Your task to perform on an android device: toggle wifi Image 0: 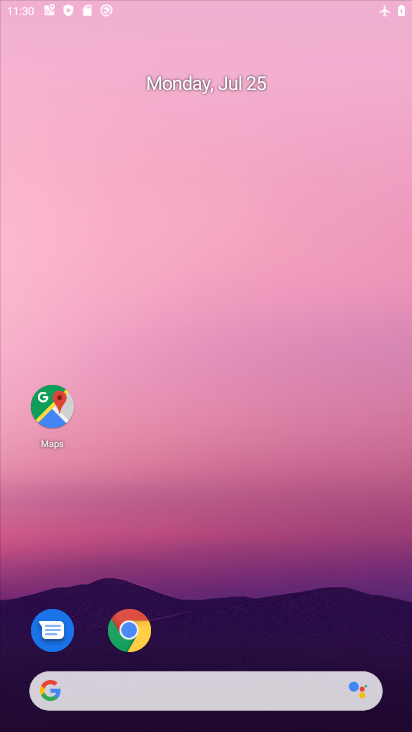
Step 0: drag from (243, 682) to (263, 210)
Your task to perform on an android device: toggle wifi Image 1: 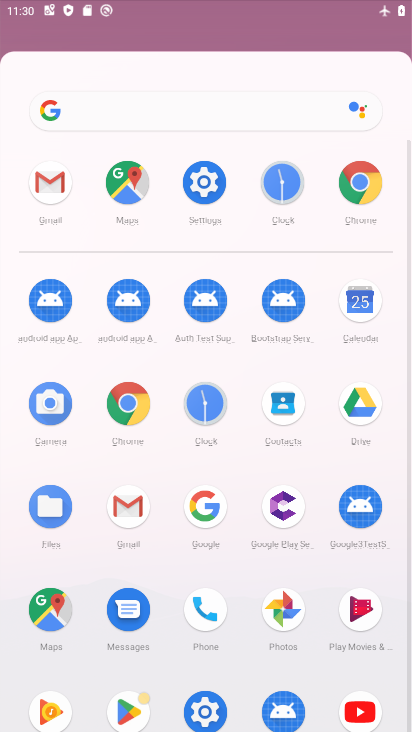
Step 1: drag from (306, 418) to (225, 189)
Your task to perform on an android device: toggle wifi Image 2: 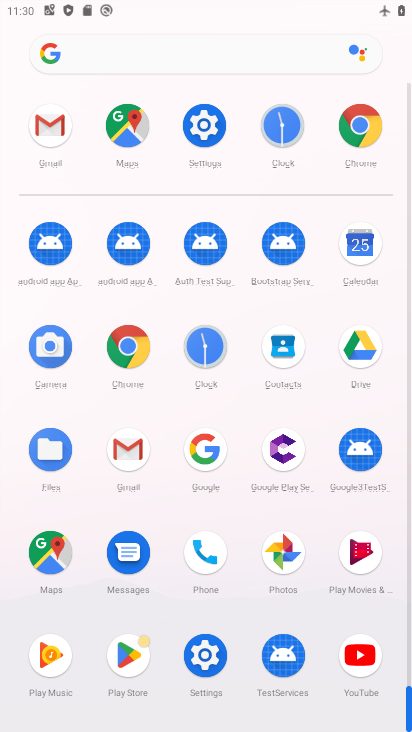
Step 2: click (203, 204)
Your task to perform on an android device: toggle wifi Image 3: 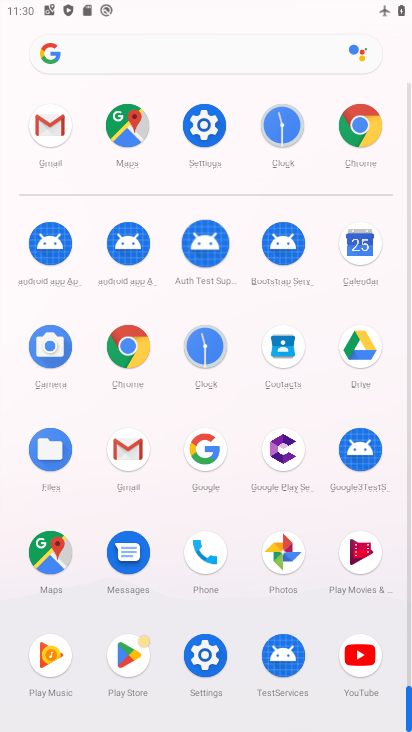
Step 3: click (198, 131)
Your task to perform on an android device: toggle wifi Image 4: 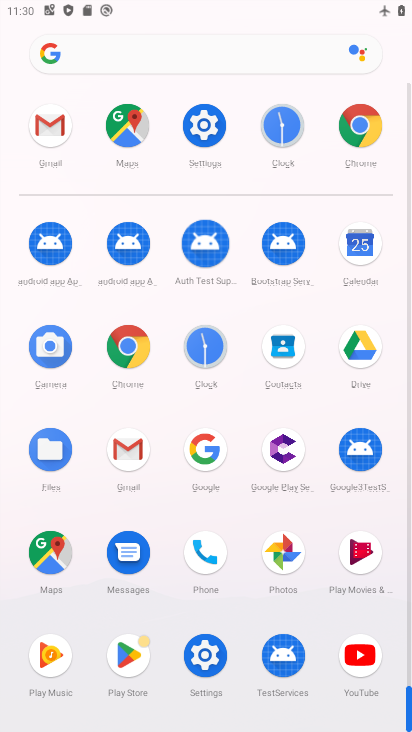
Step 4: click (198, 131)
Your task to perform on an android device: toggle wifi Image 5: 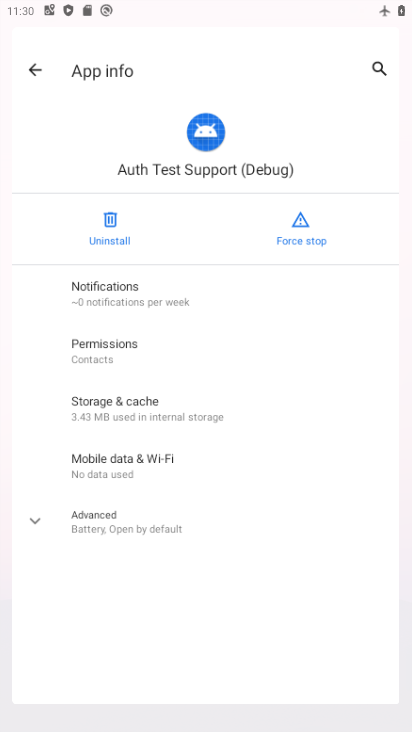
Step 5: click (205, 126)
Your task to perform on an android device: toggle wifi Image 6: 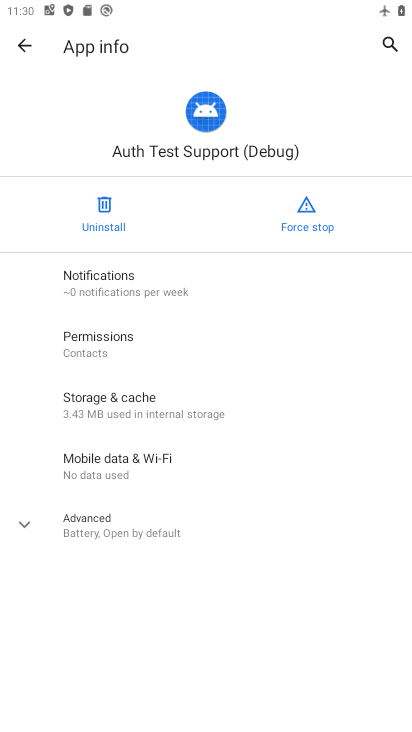
Step 6: click (33, 44)
Your task to perform on an android device: toggle wifi Image 7: 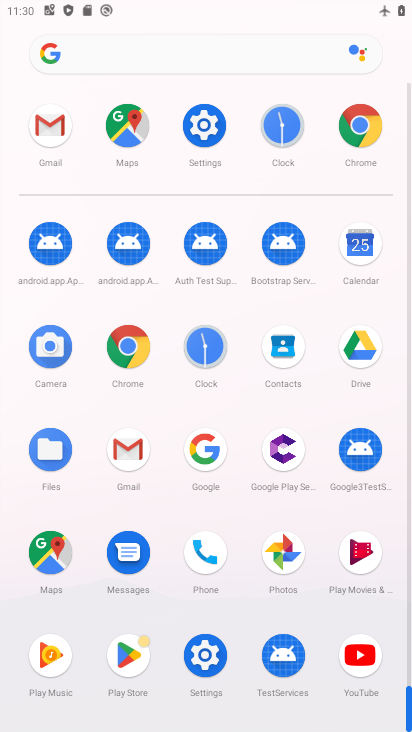
Step 7: click (203, 122)
Your task to perform on an android device: toggle wifi Image 8: 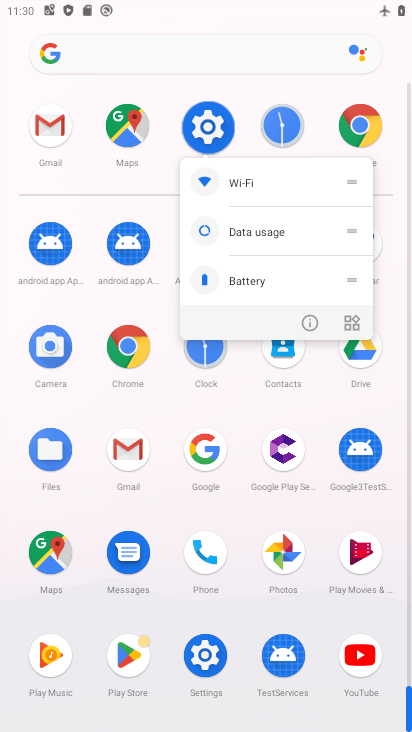
Step 8: click (208, 124)
Your task to perform on an android device: toggle wifi Image 9: 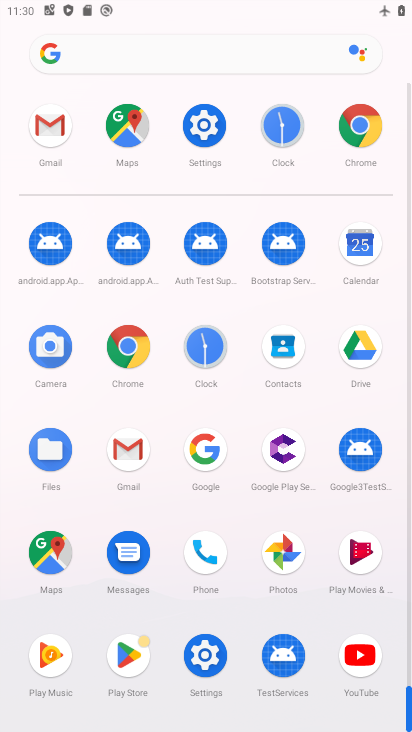
Step 9: click (249, 181)
Your task to perform on an android device: toggle wifi Image 10: 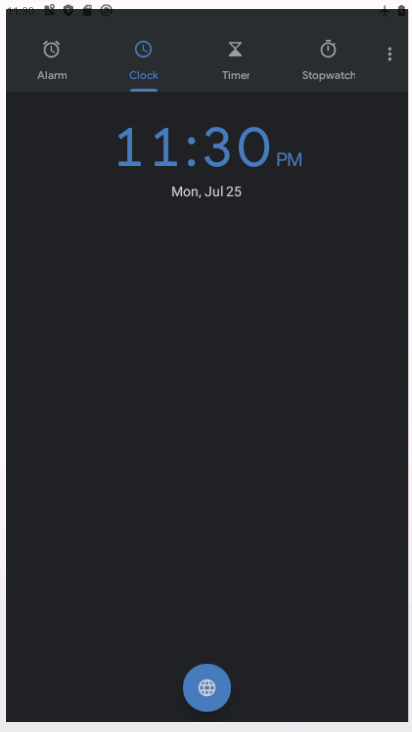
Step 10: click (207, 120)
Your task to perform on an android device: toggle wifi Image 11: 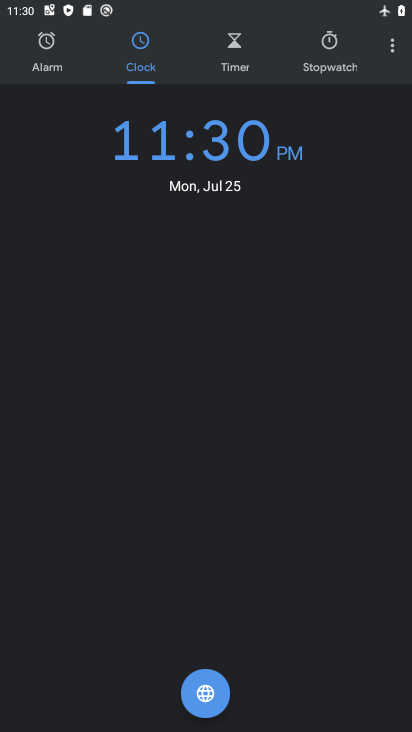
Step 11: press back button
Your task to perform on an android device: toggle wifi Image 12: 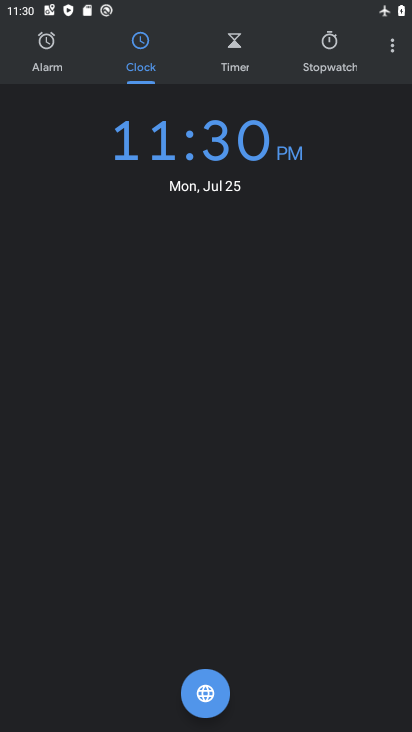
Step 12: press back button
Your task to perform on an android device: toggle wifi Image 13: 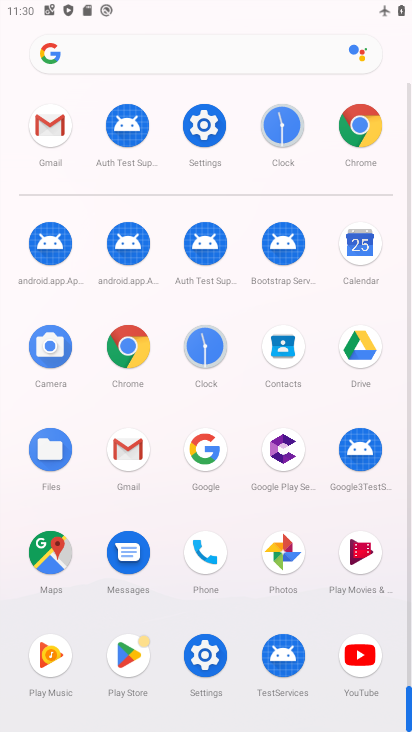
Step 13: press back button
Your task to perform on an android device: toggle wifi Image 14: 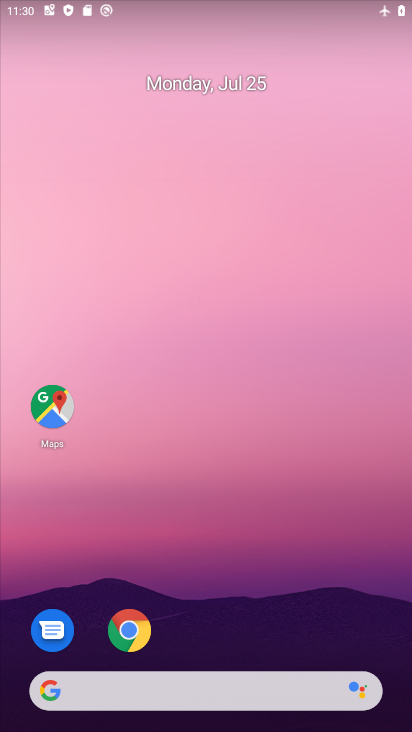
Step 14: drag from (192, 612) to (195, 196)
Your task to perform on an android device: toggle wifi Image 15: 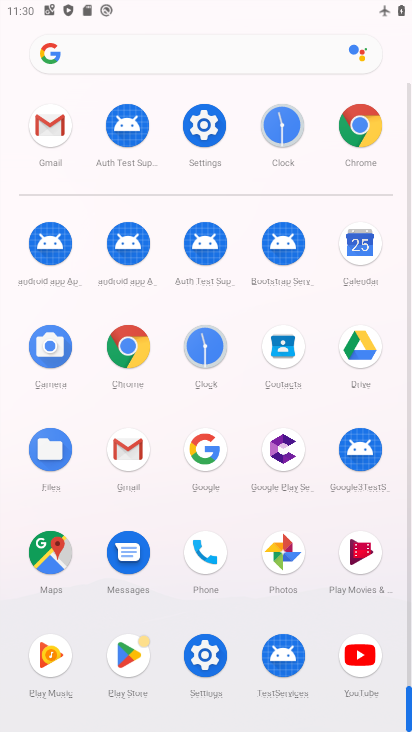
Step 15: click (209, 124)
Your task to perform on an android device: toggle wifi Image 16: 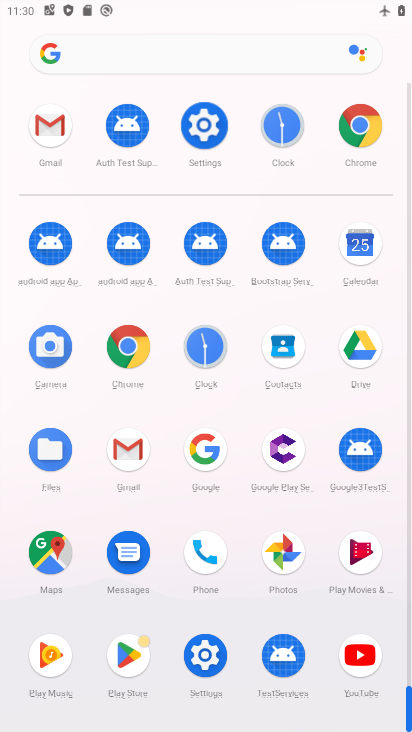
Step 16: click (209, 124)
Your task to perform on an android device: toggle wifi Image 17: 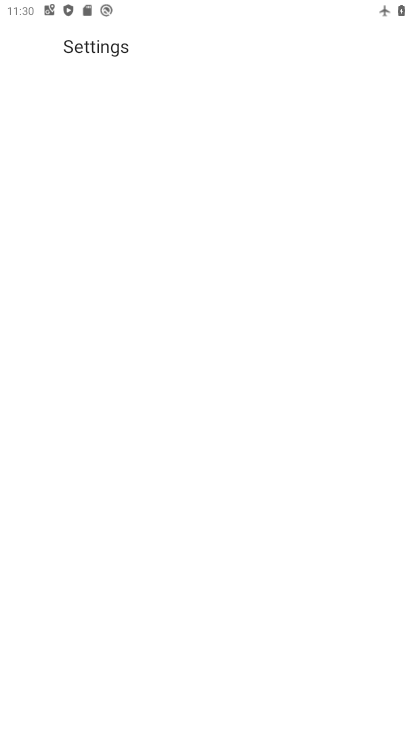
Step 17: click (209, 124)
Your task to perform on an android device: toggle wifi Image 18: 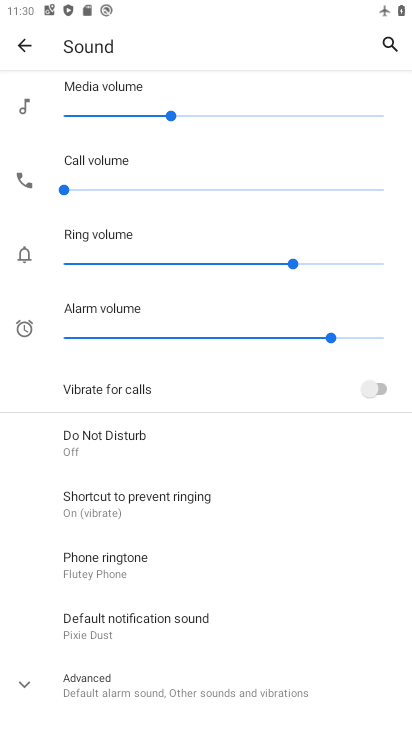
Step 18: drag from (163, 120) to (180, 363)
Your task to perform on an android device: toggle wifi Image 19: 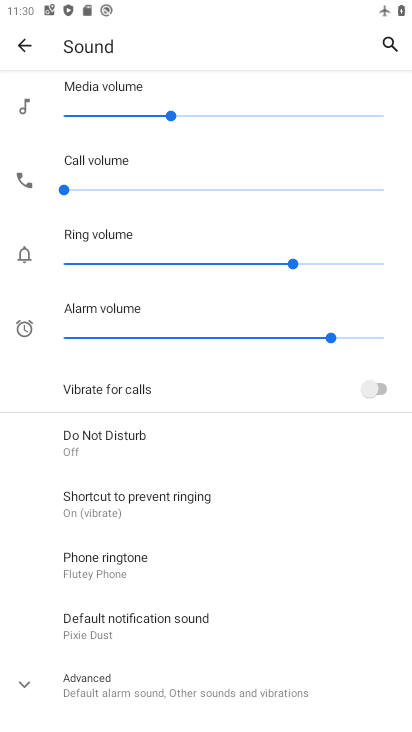
Step 19: click (22, 39)
Your task to perform on an android device: toggle wifi Image 20: 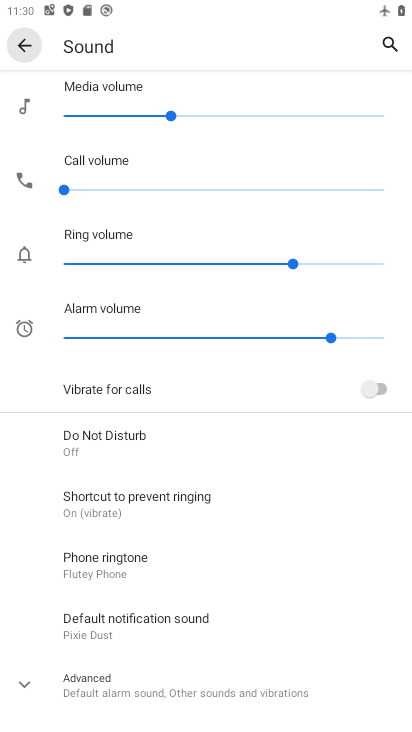
Step 20: drag from (162, 289) to (176, 418)
Your task to perform on an android device: toggle wifi Image 21: 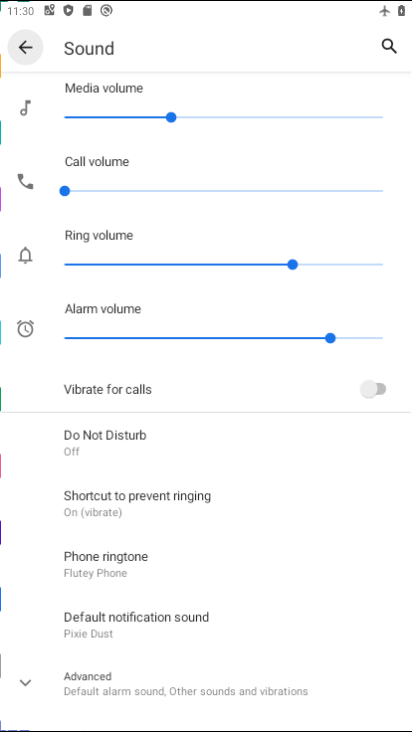
Step 21: drag from (174, 158) to (166, 406)
Your task to perform on an android device: toggle wifi Image 22: 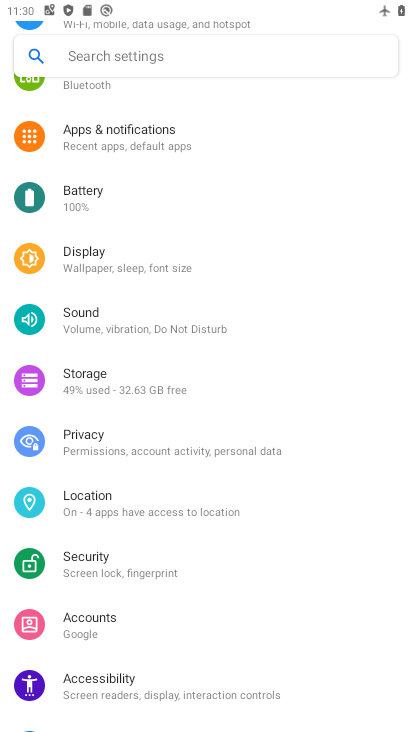
Step 22: drag from (124, 156) to (216, 490)
Your task to perform on an android device: toggle wifi Image 23: 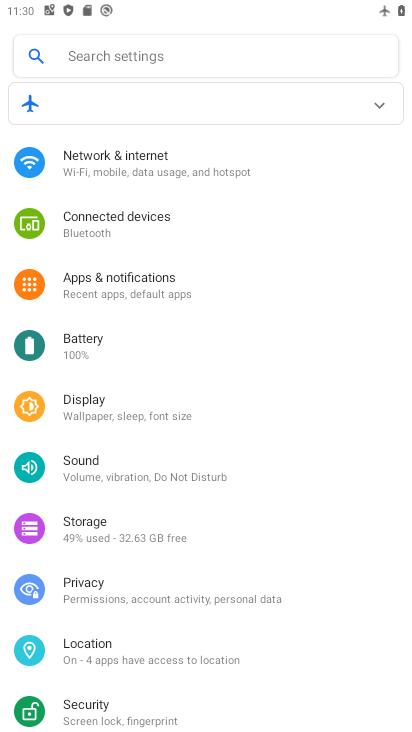
Step 23: click (244, 534)
Your task to perform on an android device: toggle wifi Image 24: 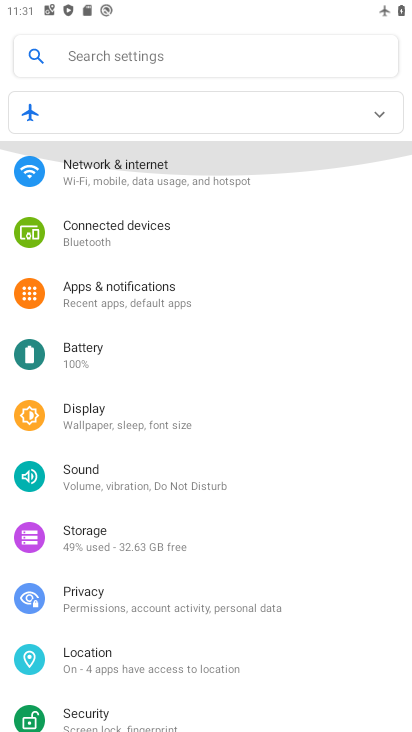
Step 24: drag from (209, 428) to (209, 538)
Your task to perform on an android device: toggle wifi Image 25: 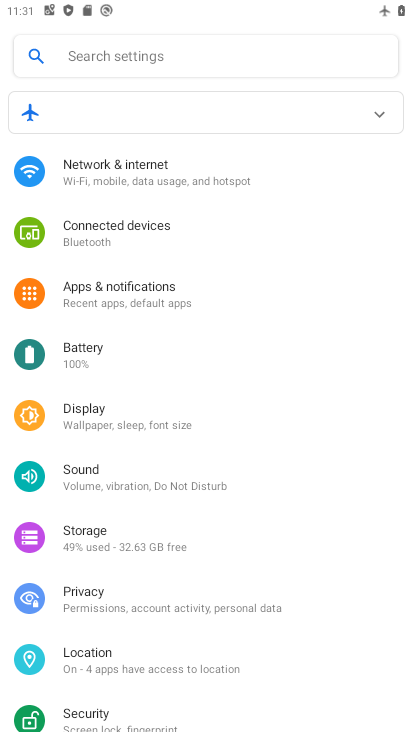
Step 25: click (158, 173)
Your task to perform on an android device: toggle wifi Image 26: 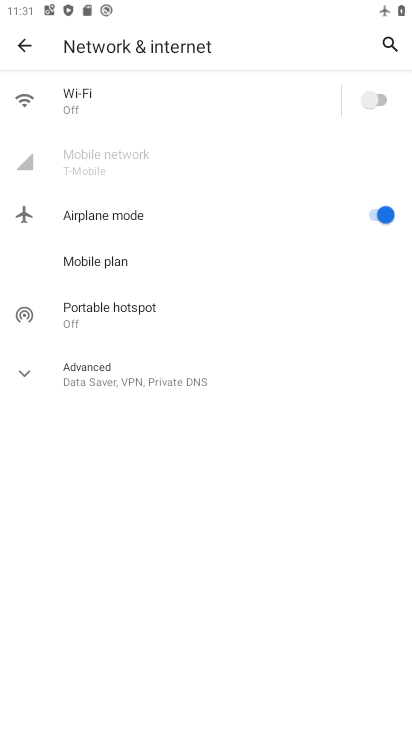
Step 26: click (366, 100)
Your task to perform on an android device: toggle wifi Image 27: 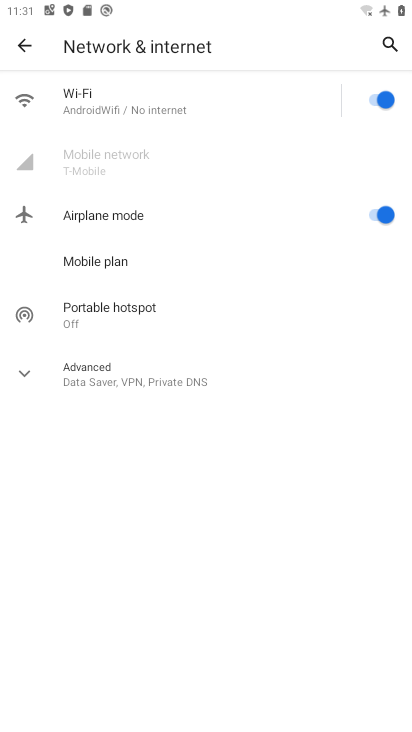
Step 27: task complete